Your task to perform on an android device: Is it going to rain tomorrow? Image 0: 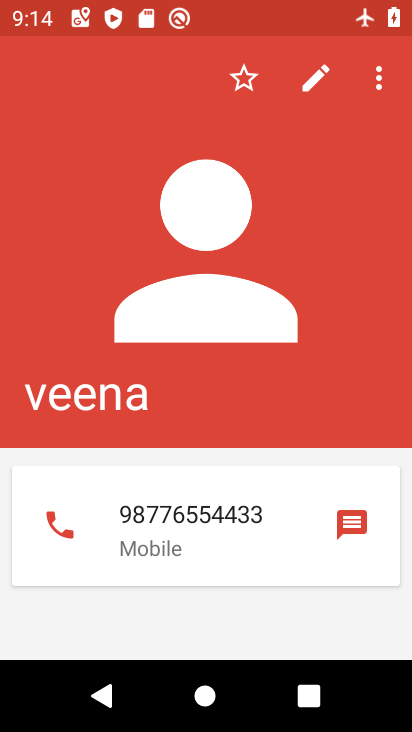
Step 0: press home button
Your task to perform on an android device: Is it going to rain tomorrow? Image 1: 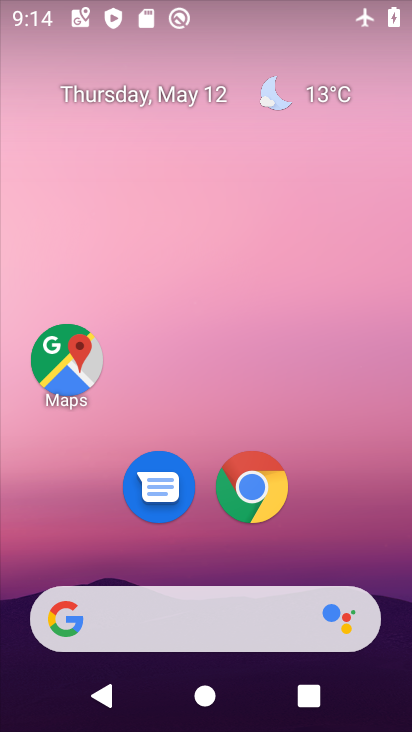
Step 1: click (318, 105)
Your task to perform on an android device: Is it going to rain tomorrow? Image 2: 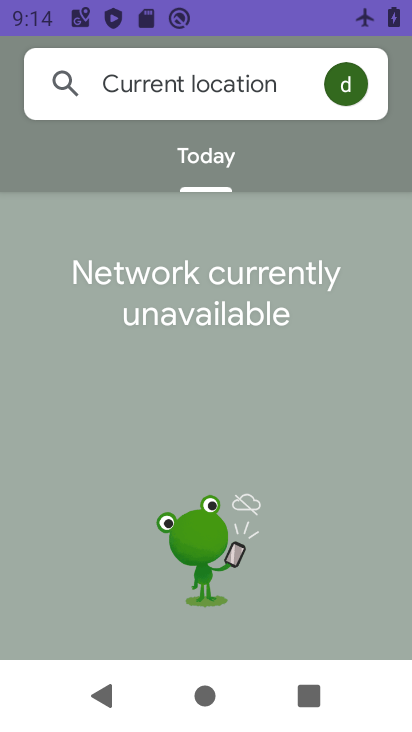
Step 2: task complete